Your task to perform on an android device: open a bookmark in the chrome app Image 0: 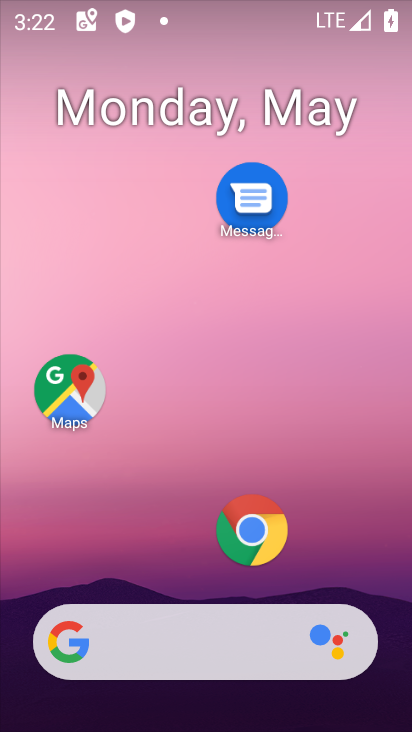
Step 0: click (245, 513)
Your task to perform on an android device: open a bookmark in the chrome app Image 1: 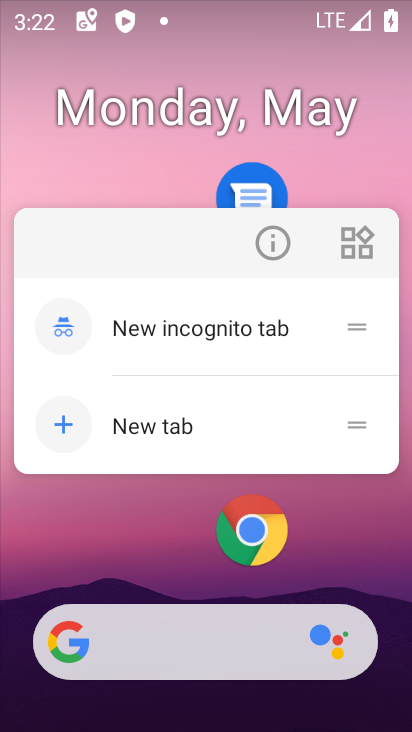
Step 1: click (257, 514)
Your task to perform on an android device: open a bookmark in the chrome app Image 2: 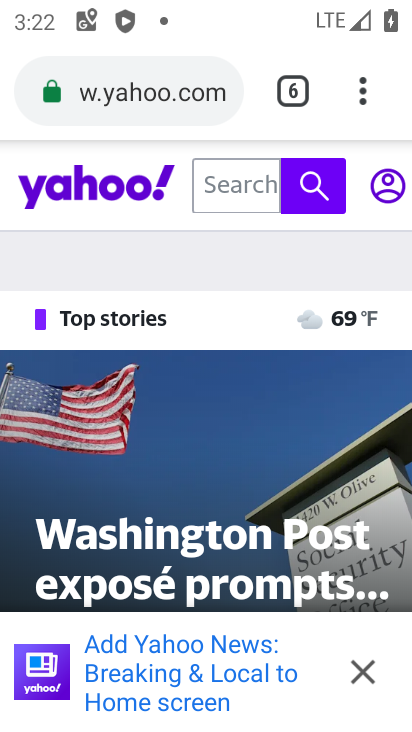
Step 2: task complete